Your task to perform on an android device: Open Android settings Image 0: 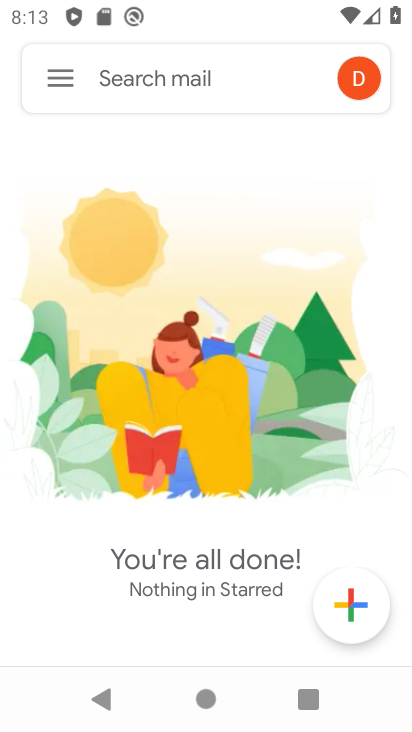
Step 0: press home button
Your task to perform on an android device: Open Android settings Image 1: 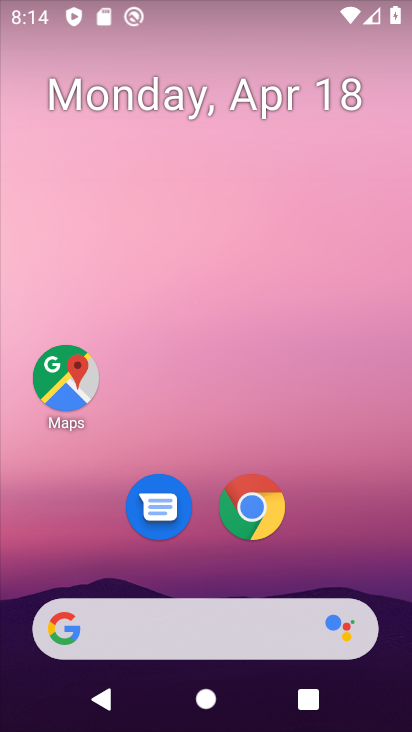
Step 1: drag from (304, 552) to (297, 174)
Your task to perform on an android device: Open Android settings Image 2: 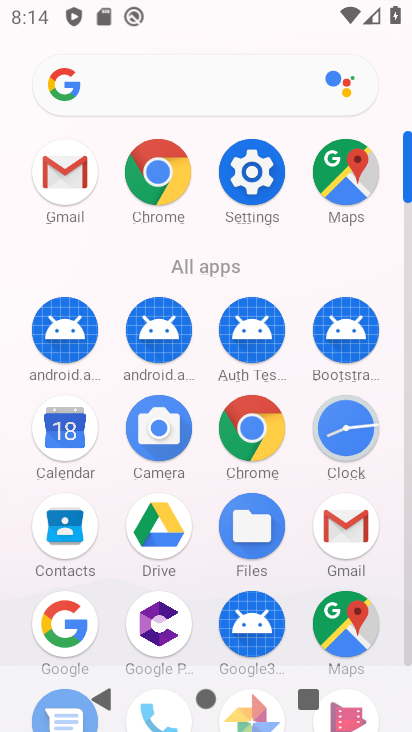
Step 2: click (251, 171)
Your task to perform on an android device: Open Android settings Image 3: 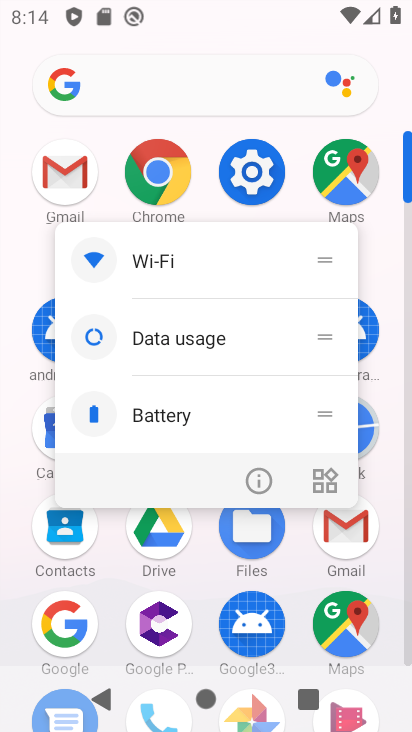
Step 3: click (242, 177)
Your task to perform on an android device: Open Android settings Image 4: 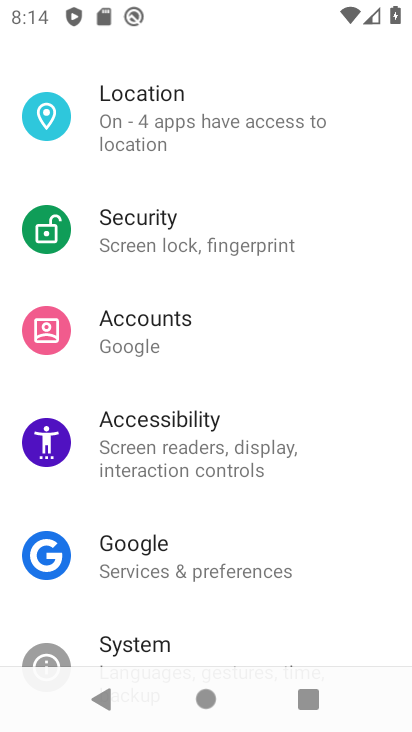
Step 4: drag from (255, 559) to (230, 210)
Your task to perform on an android device: Open Android settings Image 5: 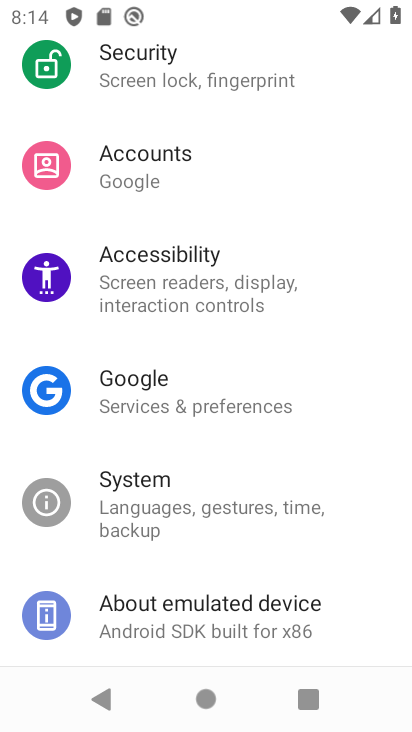
Step 5: click (133, 608)
Your task to perform on an android device: Open Android settings Image 6: 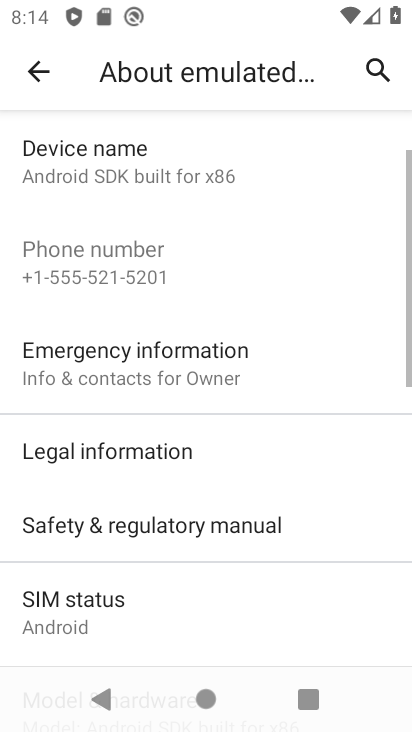
Step 6: drag from (190, 587) to (244, 242)
Your task to perform on an android device: Open Android settings Image 7: 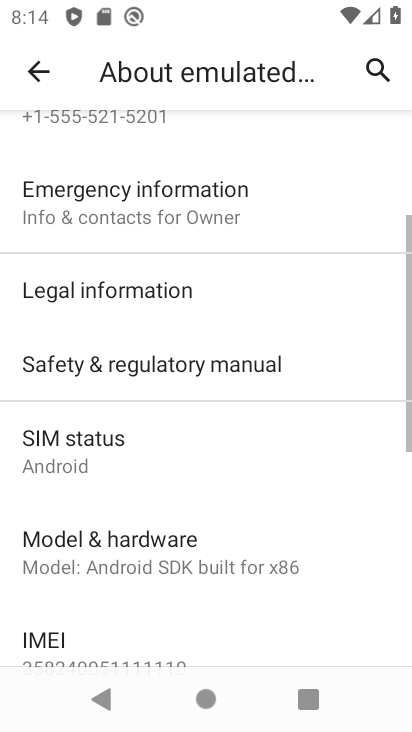
Step 7: drag from (197, 609) to (228, 194)
Your task to perform on an android device: Open Android settings Image 8: 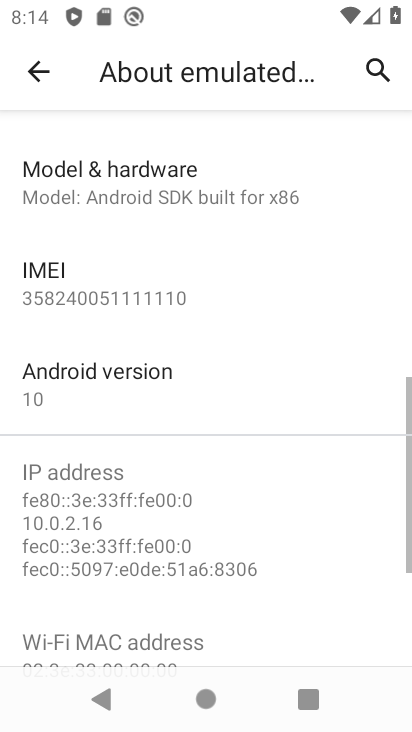
Step 8: drag from (184, 541) to (198, 172)
Your task to perform on an android device: Open Android settings Image 9: 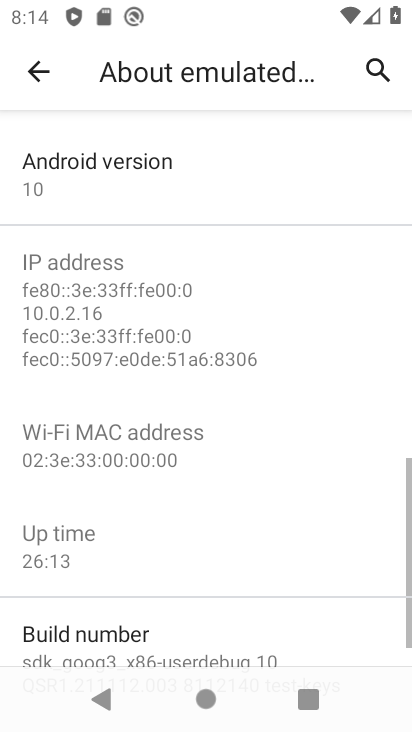
Step 9: click (71, 191)
Your task to perform on an android device: Open Android settings Image 10: 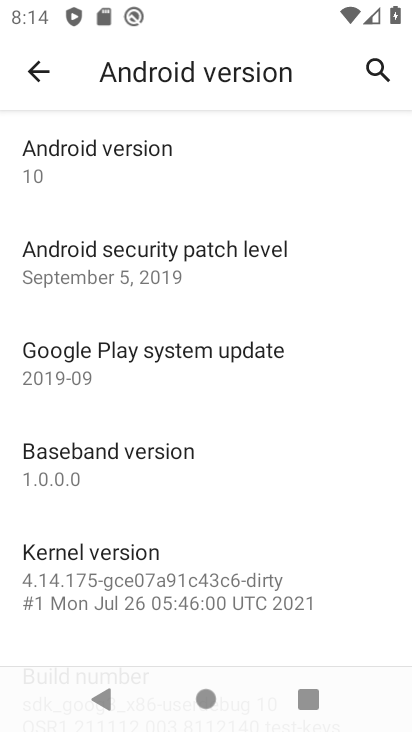
Step 10: task complete